Your task to perform on an android device: Open my contact list Image 0: 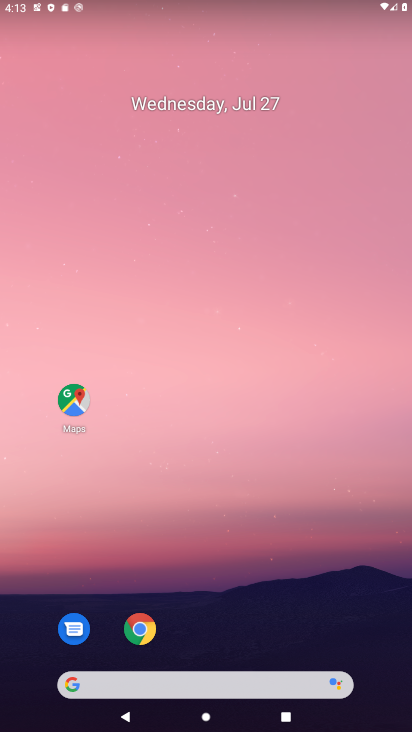
Step 0: drag from (280, 654) to (246, 86)
Your task to perform on an android device: Open my contact list Image 1: 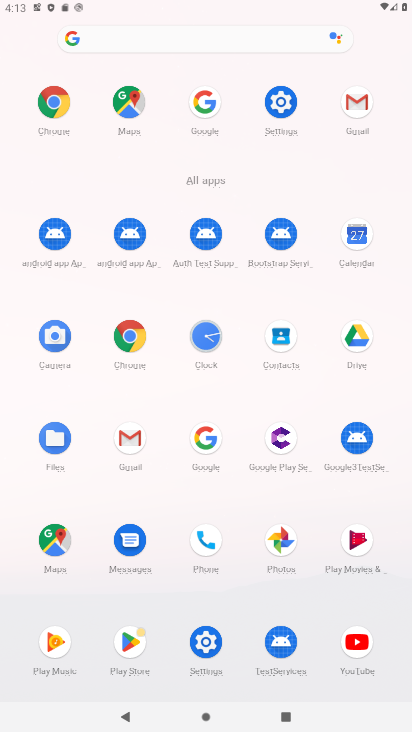
Step 1: click (210, 555)
Your task to perform on an android device: Open my contact list Image 2: 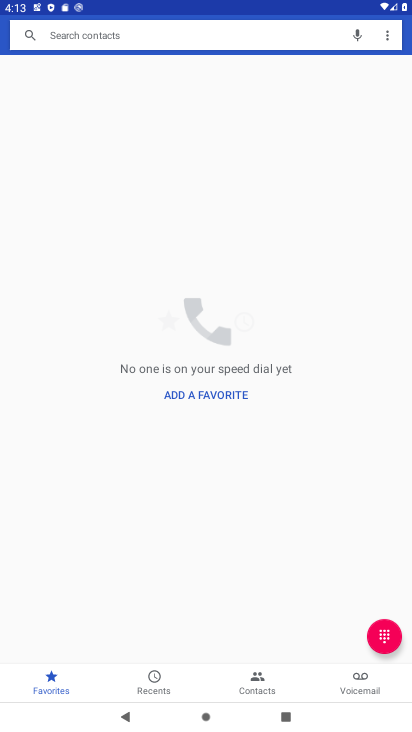
Step 2: click (247, 681)
Your task to perform on an android device: Open my contact list Image 3: 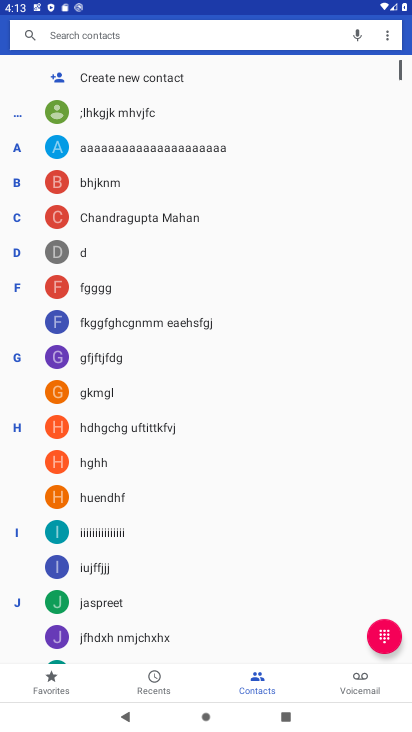
Step 3: task complete